Your task to perform on an android device: toggle priority inbox in the gmail app Image 0: 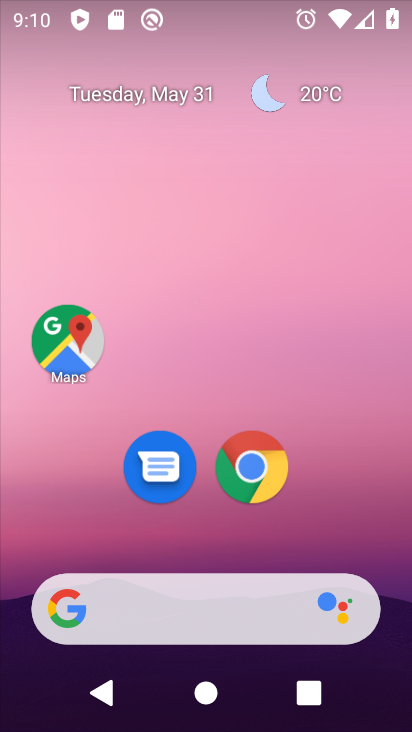
Step 0: drag from (193, 556) to (253, 48)
Your task to perform on an android device: toggle priority inbox in the gmail app Image 1: 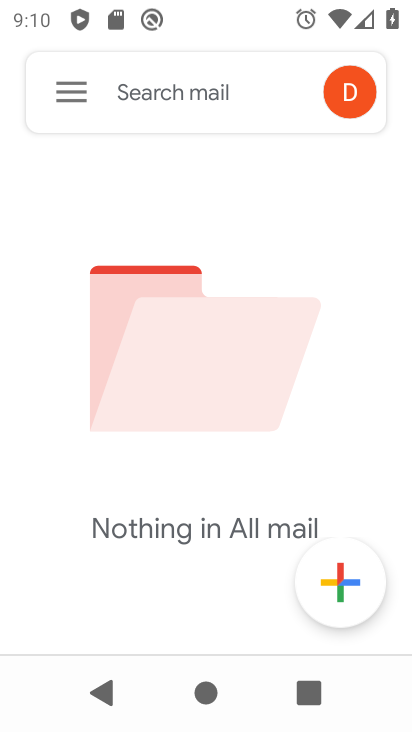
Step 1: drag from (234, 580) to (322, 213)
Your task to perform on an android device: toggle priority inbox in the gmail app Image 2: 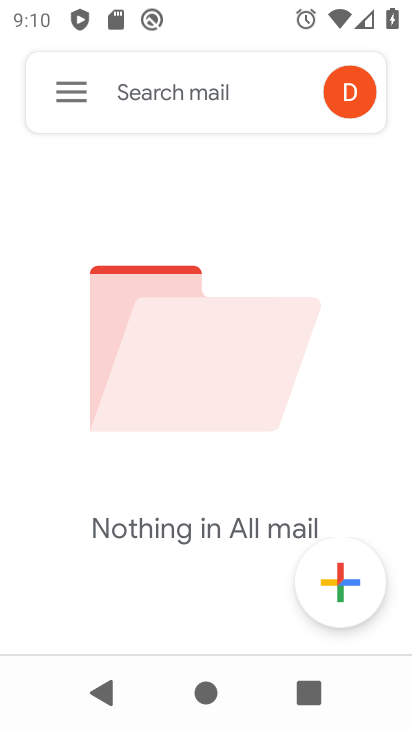
Step 2: drag from (179, 256) to (187, 704)
Your task to perform on an android device: toggle priority inbox in the gmail app Image 3: 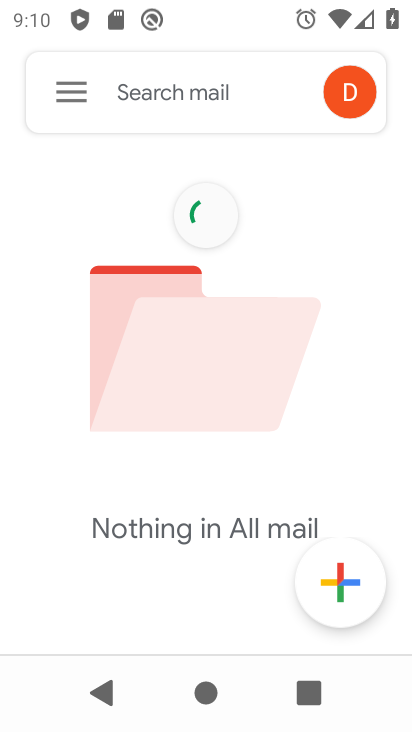
Step 3: click (71, 97)
Your task to perform on an android device: toggle priority inbox in the gmail app Image 4: 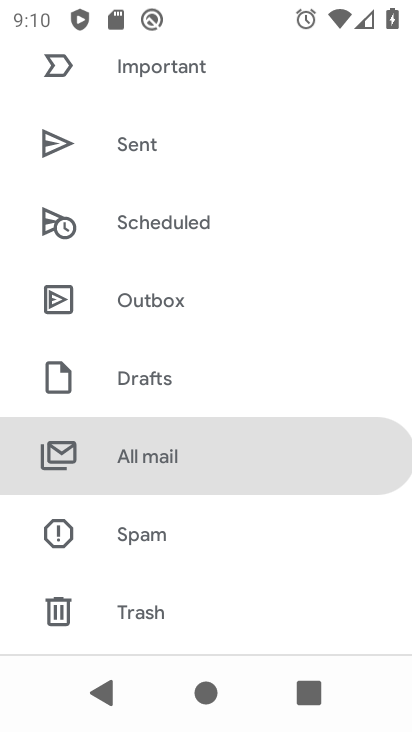
Step 4: drag from (181, 537) to (246, 204)
Your task to perform on an android device: toggle priority inbox in the gmail app Image 5: 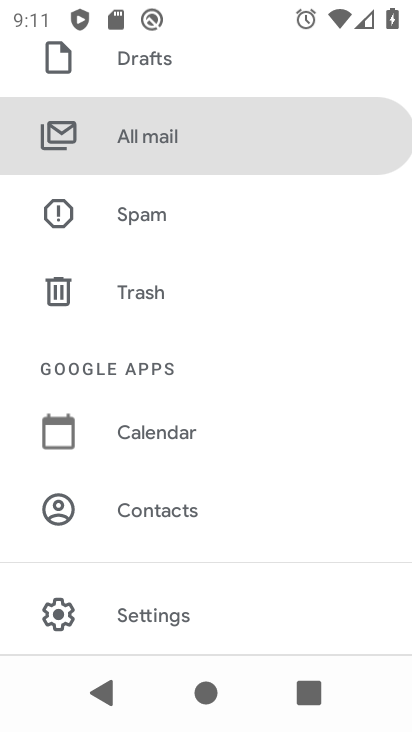
Step 5: drag from (162, 555) to (297, 141)
Your task to perform on an android device: toggle priority inbox in the gmail app Image 6: 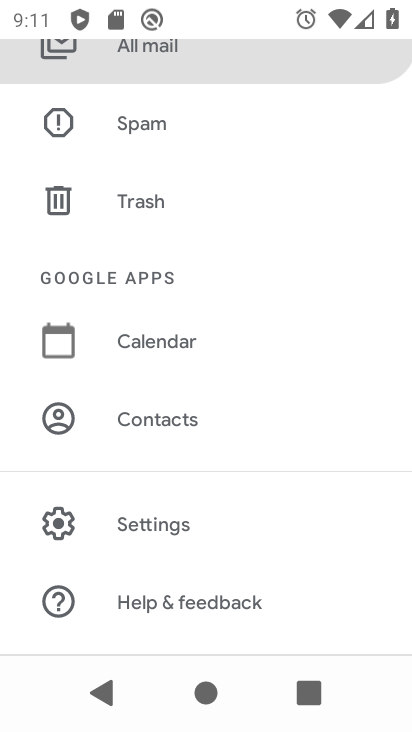
Step 6: drag from (192, 563) to (270, 184)
Your task to perform on an android device: toggle priority inbox in the gmail app Image 7: 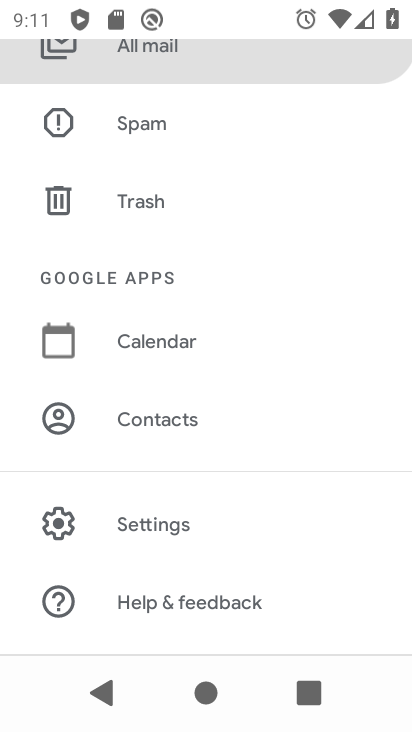
Step 7: drag from (239, 222) to (300, 730)
Your task to perform on an android device: toggle priority inbox in the gmail app Image 8: 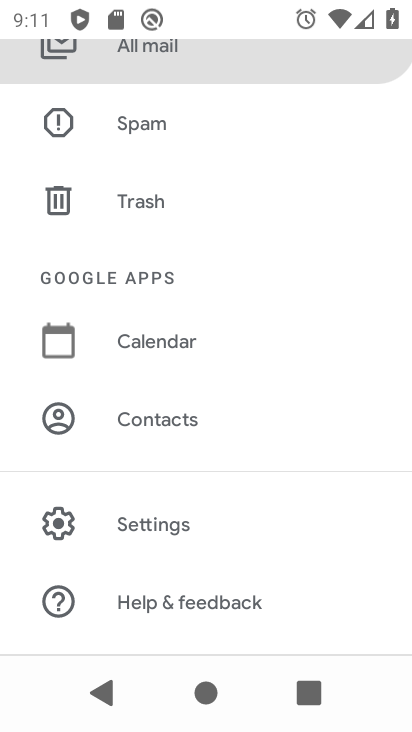
Step 8: drag from (252, 422) to (315, 89)
Your task to perform on an android device: toggle priority inbox in the gmail app Image 9: 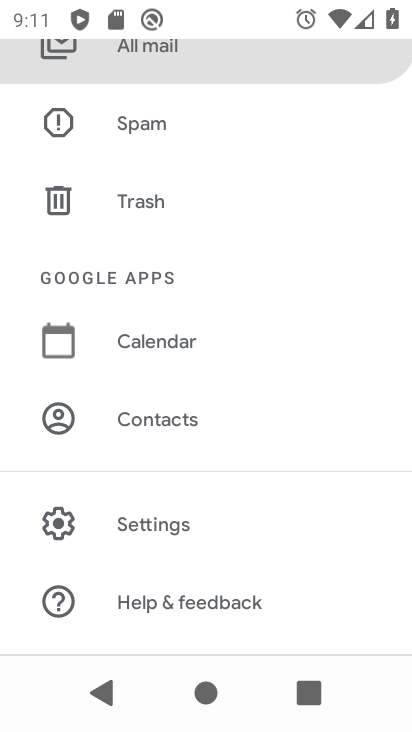
Step 9: click (160, 528)
Your task to perform on an android device: toggle priority inbox in the gmail app Image 10: 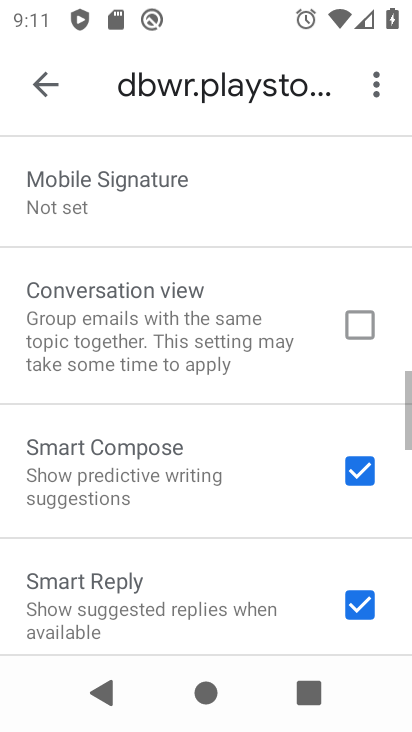
Step 10: drag from (231, 257) to (257, 697)
Your task to perform on an android device: toggle priority inbox in the gmail app Image 11: 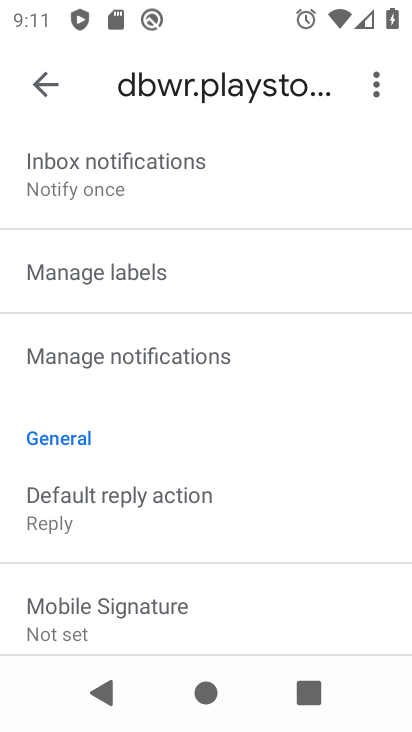
Step 11: drag from (195, 286) to (303, 657)
Your task to perform on an android device: toggle priority inbox in the gmail app Image 12: 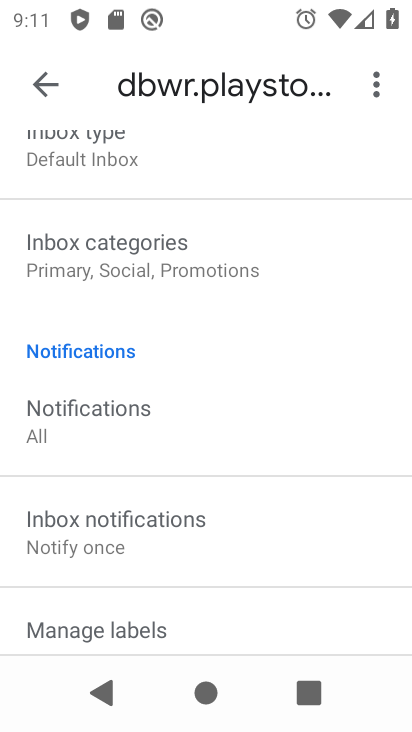
Step 12: drag from (197, 233) to (167, 645)
Your task to perform on an android device: toggle priority inbox in the gmail app Image 13: 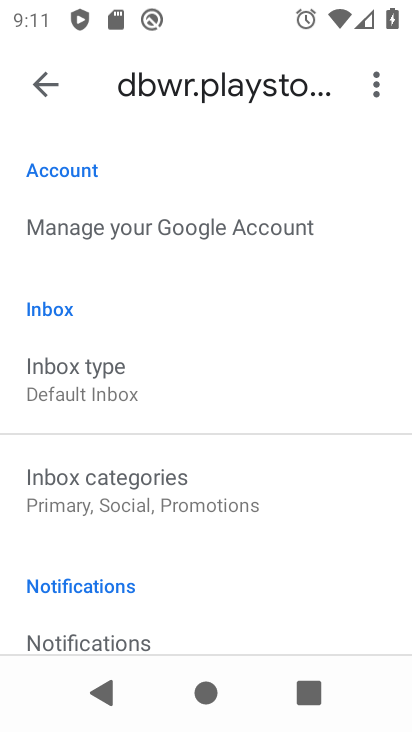
Step 13: drag from (200, 613) to (268, 269)
Your task to perform on an android device: toggle priority inbox in the gmail app Image 14: 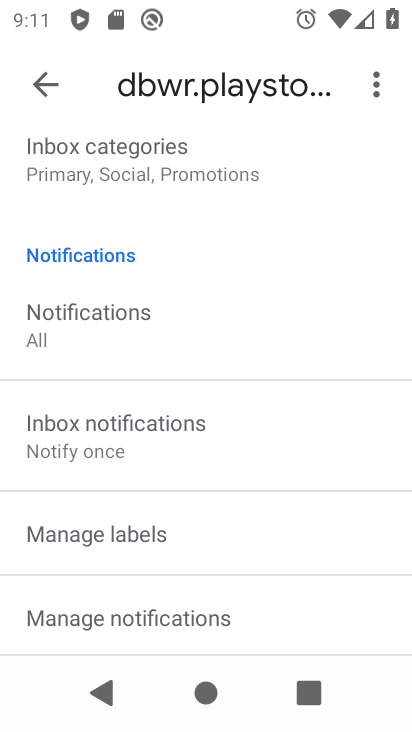
Step 14: drag from (130, 276) to (199, 665)
Your task to perform on an android device: toggle priority inbox in the gmail app Image 15: 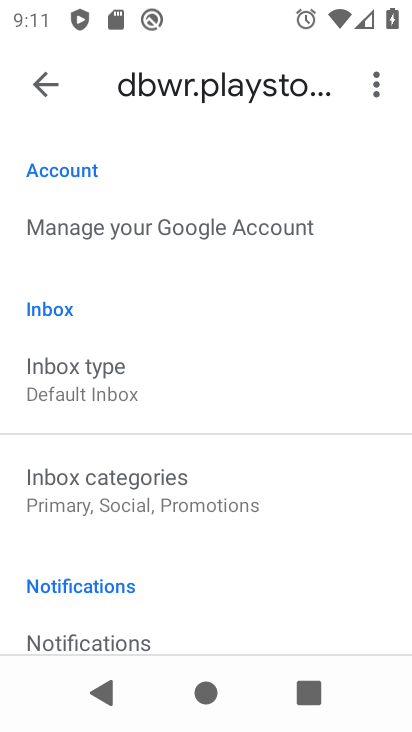
Step 15: drag from (184, 596) to (247, 248)
Your task to perform on an android device: toggle priority inbox in the gmail app Image 16: 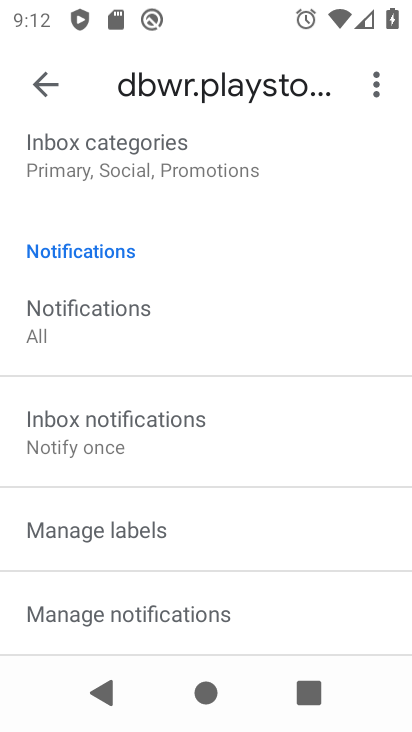
Step 16: drag from (233, 229) to (234, 583)
Your task to perform on an android device: toggle priority inbox in the gmail app Image 17: 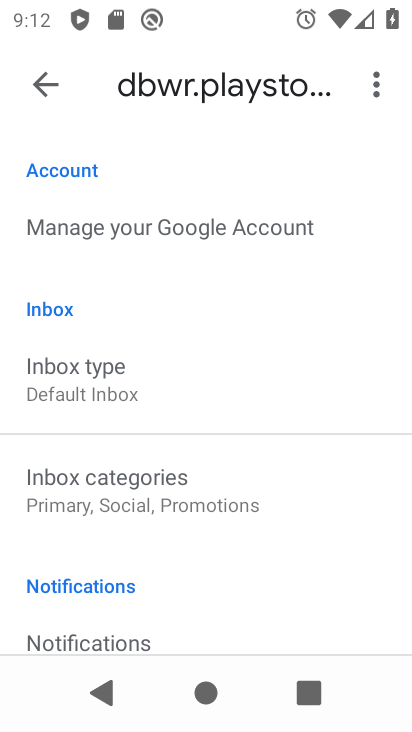
Step 17: drag from (168, 600) to (196, 68)
Your task to perform on an android device: toggle priority inbox in the gmail app Image 18: 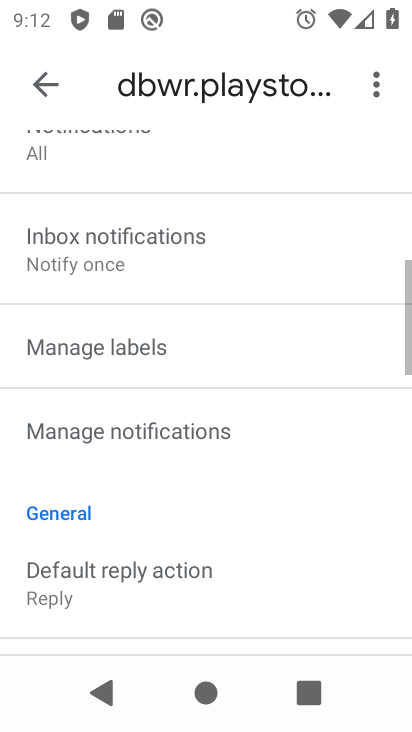
Step 18: drag from (186, 193) to (265, 730)
Your task to perform on an android device: toggle priority inbox in the gmail app Image 19: 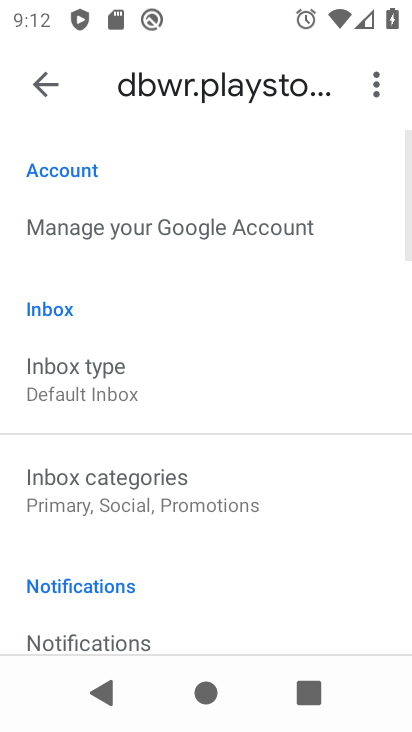
Step 19: click (178, 348)
Your task to perform on an android device: toggle priority inbox in the gmail app Image 20: 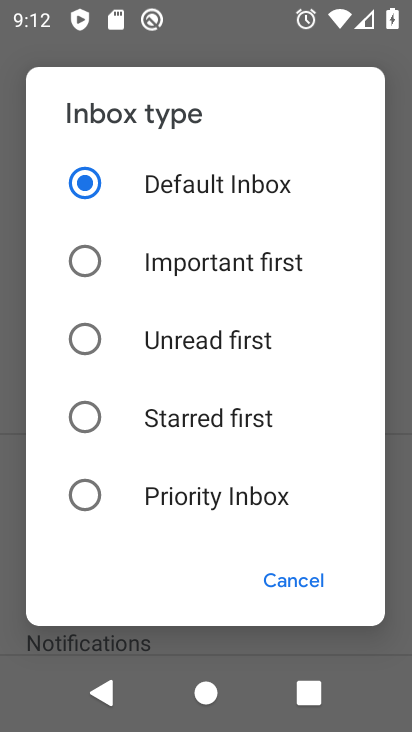
Step 20: click (151, 482)
Your task to perform on an android device: toggle priority inbox in the gmail app Image 21: 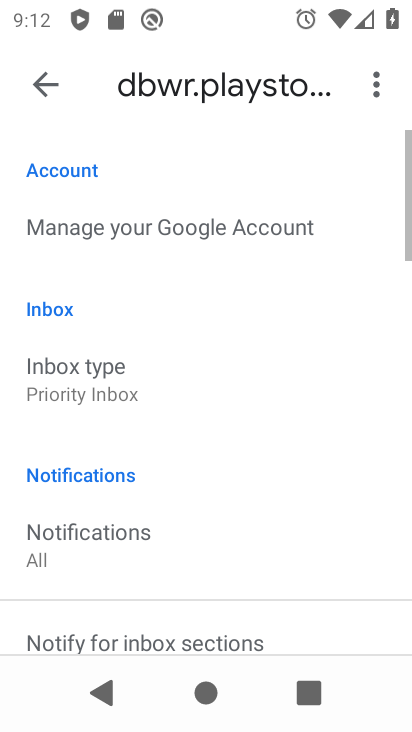
Step 21: task complete